Your task to perform on an android device: Clear the cart on bestbuy.com. Search for asus zenbook on bestbuy.com, select the first entry, and add it to the cart. Image 0: 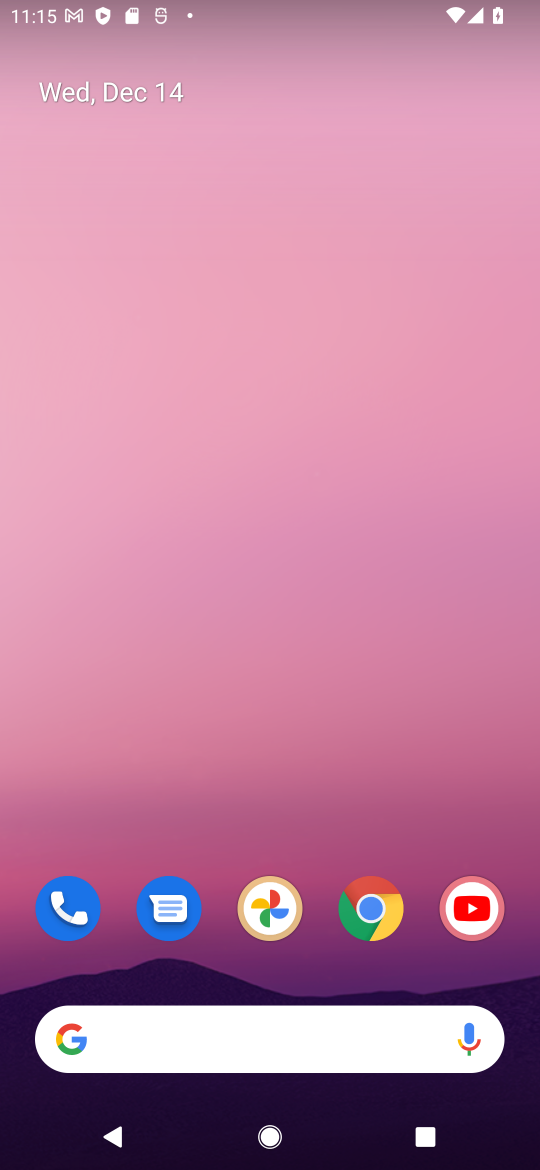
Step 0: click (376, 920)
Your task to perform on an android device: Clear the cart on bestbuy.com. Search for asus zenbook on bestbuy.com, select the first entry, and add it to the cart. Image 1: 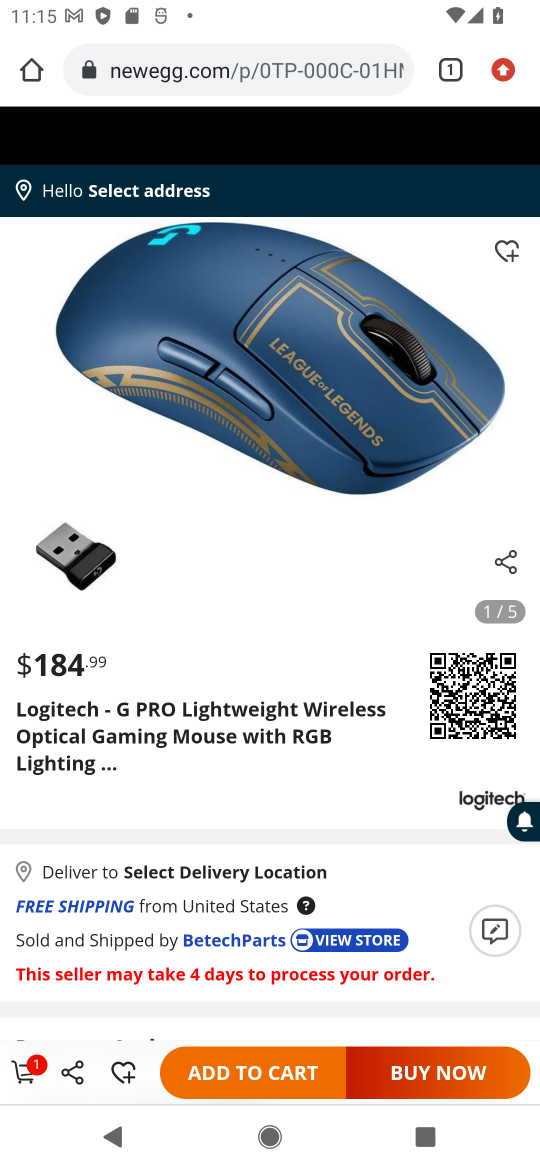
Step 1: click (217, 76)
Your task to perform on an android device: Clear the cart on bestbuy.com. Search for asus zenbook on bestbuy.com, select the first entry, and add it to the cart. Image 2: 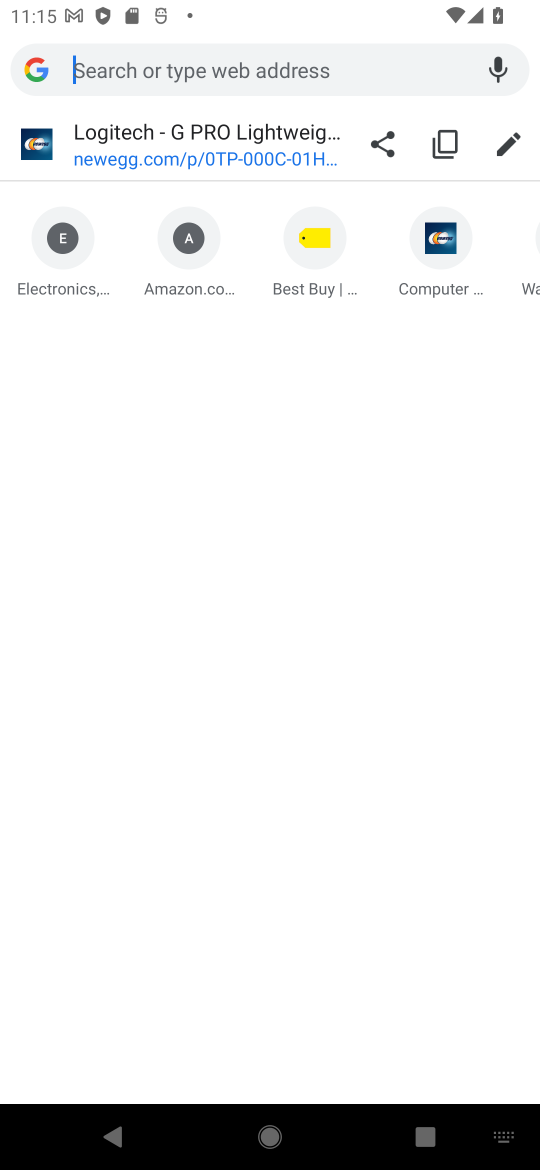
Step 2: click (299, 258)
Your task to perform on an android device: Clear the cart on bestbuy.com. Search for asus zenbook on bestbuy.com, select the first entry, and add it to the cart. Image 3: 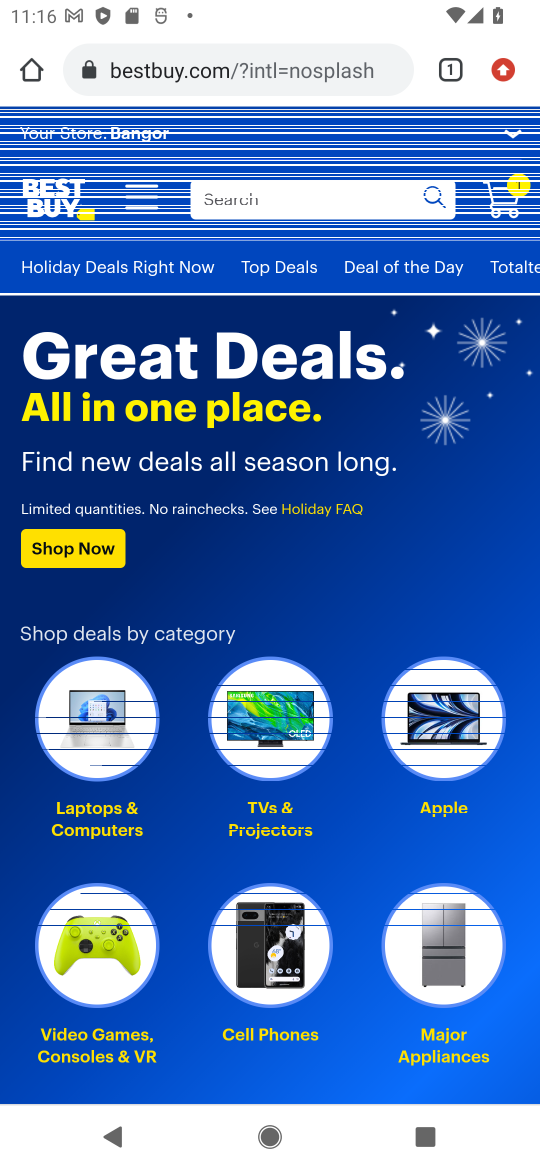
Step 3: click (493, 194)
Your task to perform on an android device: Clear the cart on bestbuy.com. Search for asus zenbook on bestbuy.com, select the first entry, and add it to the cart. Image 4: 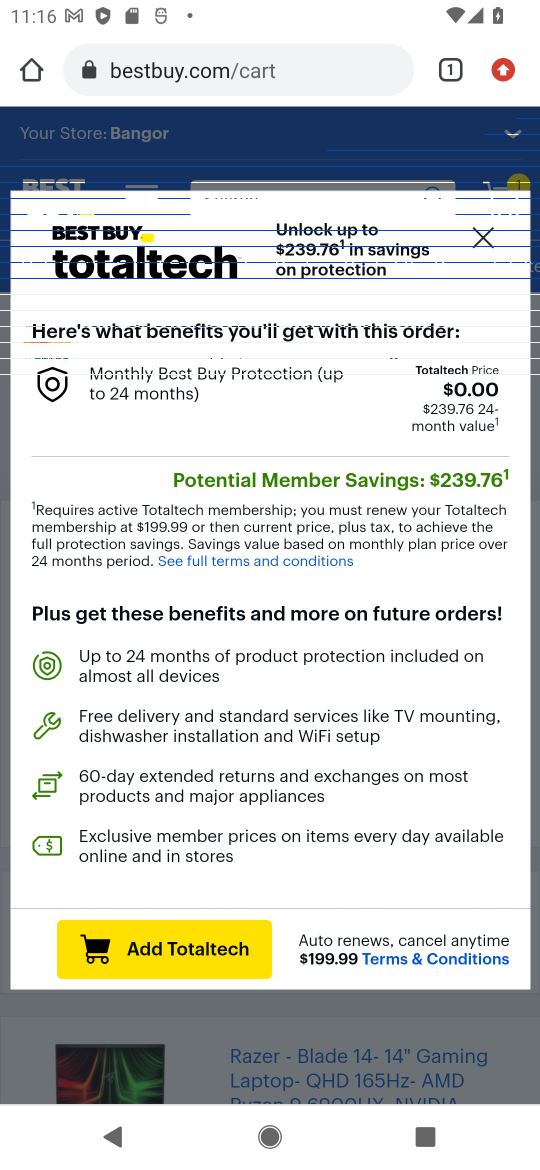
Step 4: click (487, 235)
Your task to perform on an android device: Clear the cart on bestbuy.com. Search for asus zenbook on bestbuy.com, select the first entry, and add it to the cart. Image 5: 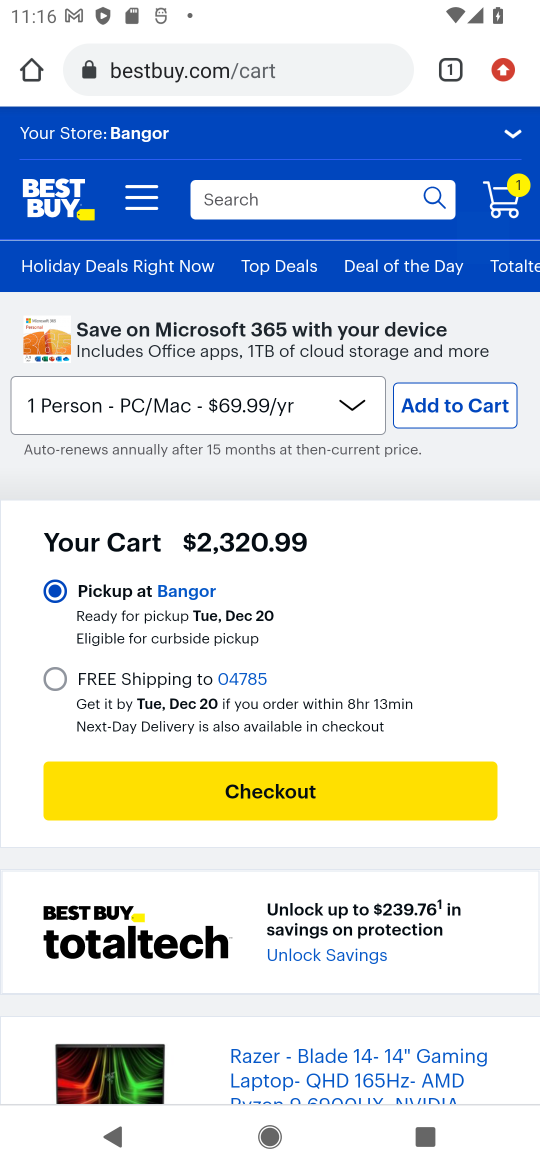
Step 5: drag from (249, 619) to (260, 277)
Your task to perform on an android device: Clear the cart on bestbuy.com. Search for asus zenbook on bestbuy.com, select the first entry, and add it to the cart. Image 6: 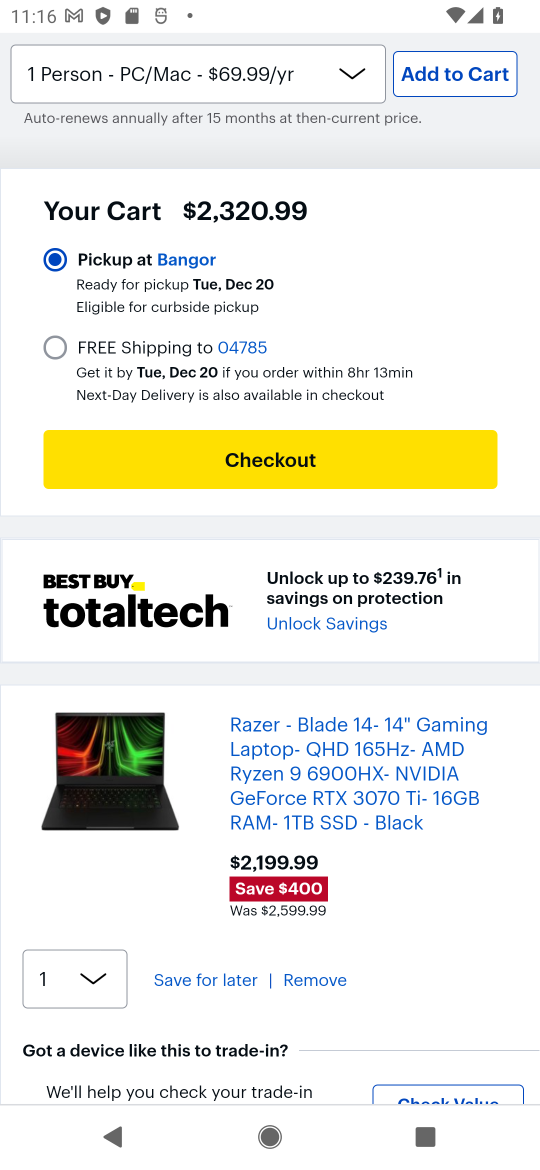
Step 6: click (309, 979)
Your task to perform on an android device: Clear the cart on bestbuy.com. Search for asus zenbook on bestbuy.com, select the first entry, and add it to the cart. Image 7: 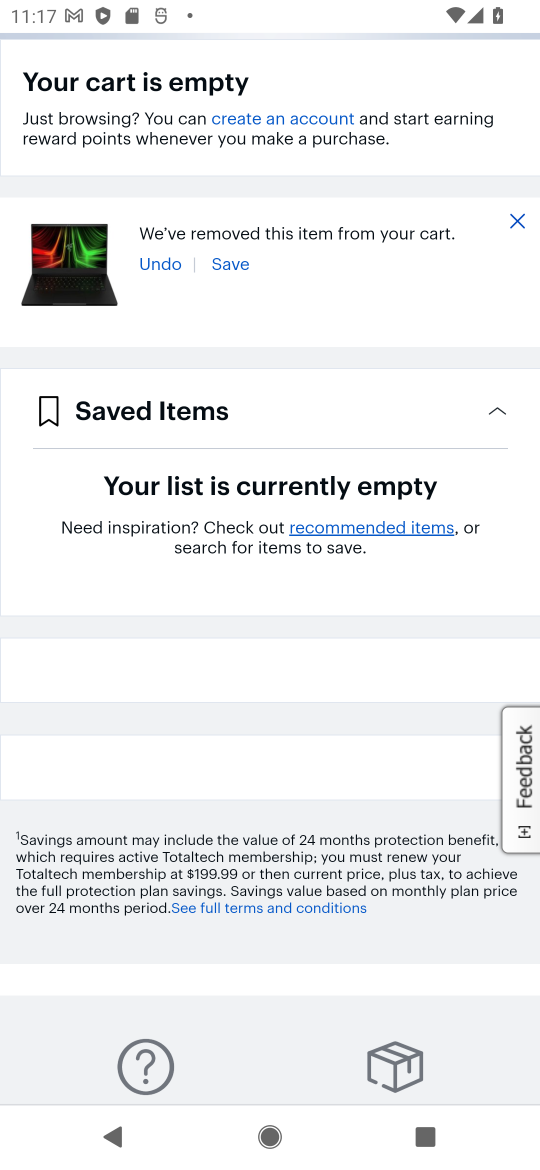
Step 7: drag from (298, 514) to (238, 916)
Your task to perform on an android device: Clear the cart on bestbuy.com. Search for asus zenbook on bestbuy.com, select the first entry, and add it to the cart. Image 8: 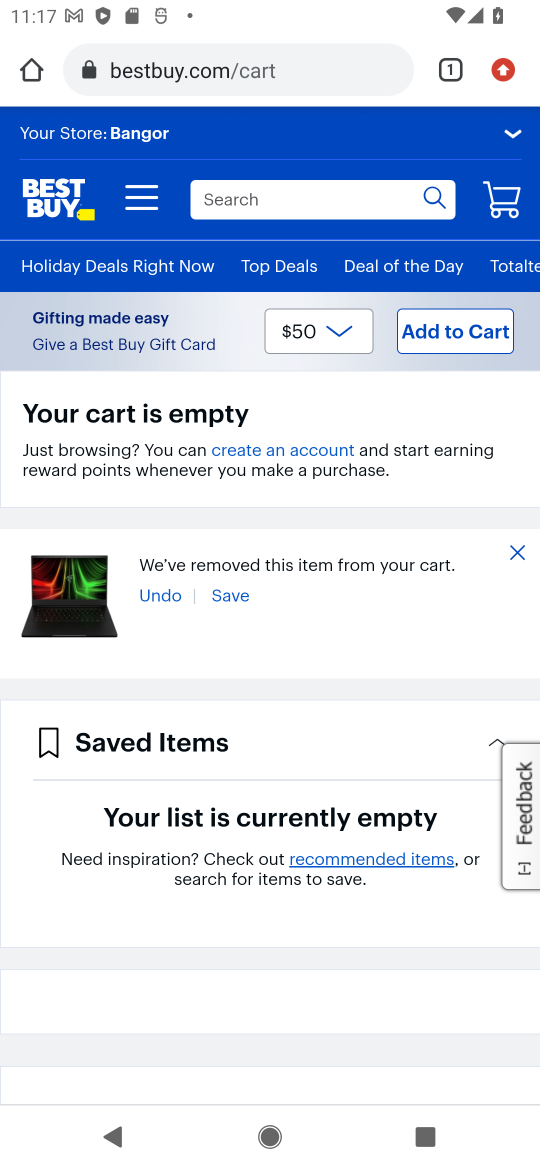
Step 8: click (239, 198)
Your task to perform on an android device: Clear the cart on bestbuy.com. Search for asus zenbook on bestbuy.com, select the first entry, and add it to the cart. Image 9: 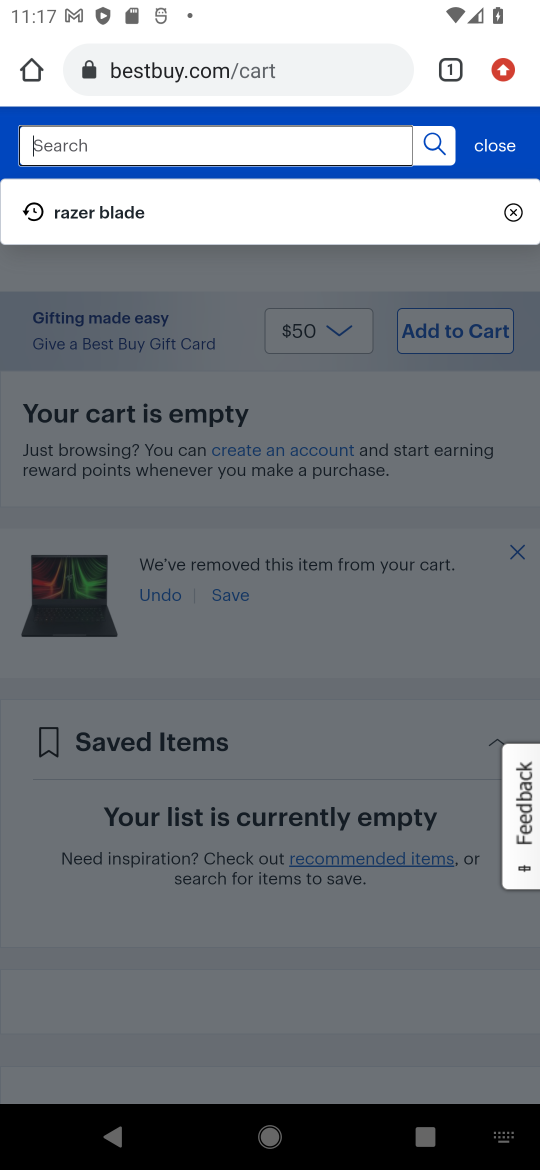
Step 9: type "asus zenbook"
Your task to perform on an android device: Clear the cart on bestbuy.com. Search for asus zenbook on bestbuy.com, select the first entry, and add it to the cart. Image 10: 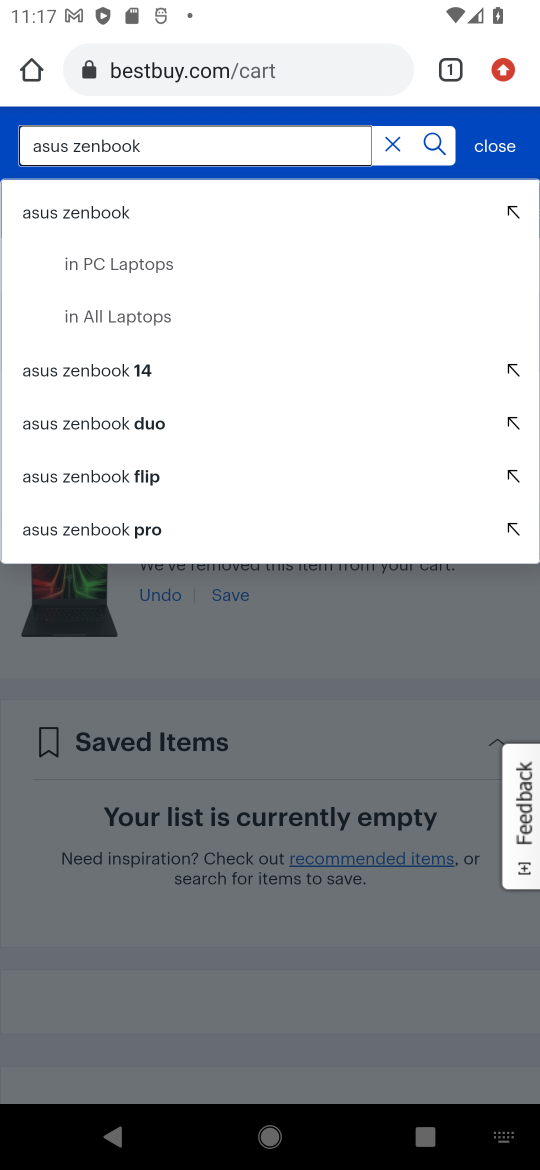
Step 10: click (51, 212)
Your task to perform on an android device: Clear the cart on bestbuy.com. Search for asus zenbook on bestbuy.com, select the first entry, and add it to the cart. Image 11: 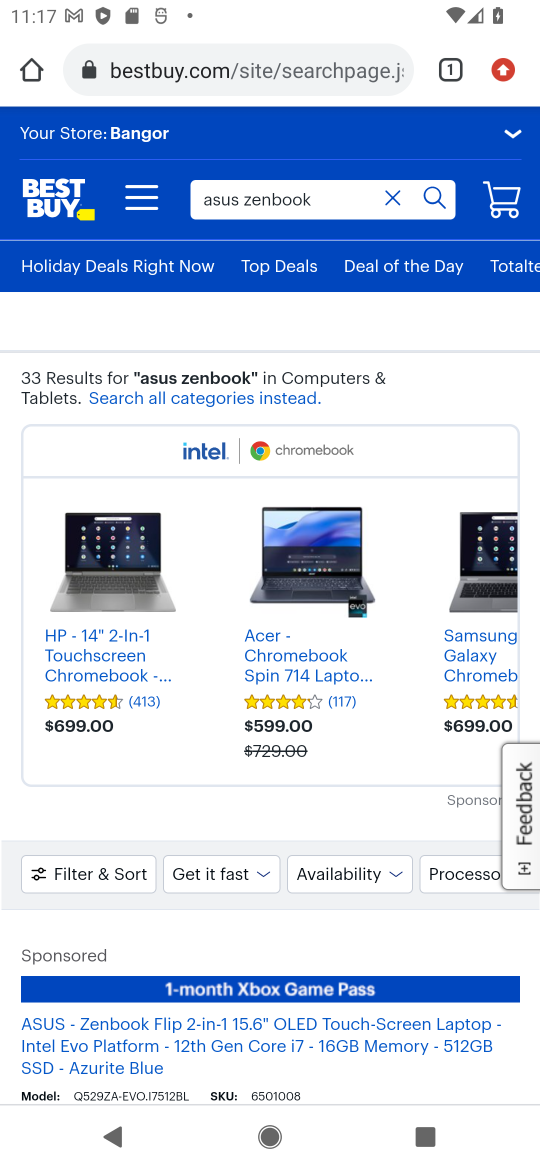
Step 11: drag from (234, 841) to (254, 459)
Your task to perform on an android device: Clear the cart on bestbuy.com. Search for asus zenbook on bestbuy.com, select the first entry, and add it to the cart. Image 12: 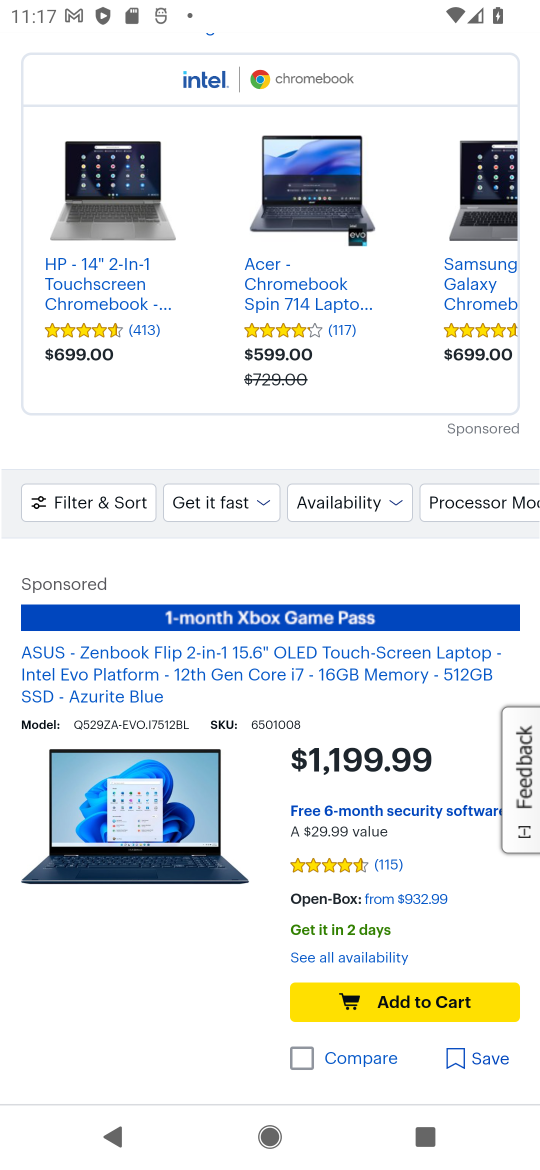
Step 12: drag from (170, 828) to (175, 564)
Your task to perform on an android device: Clear the cart on bestbuy.com. Search for asus zenbook on bestbuy.com, select the first entry, and add it to the cart. Image 13: 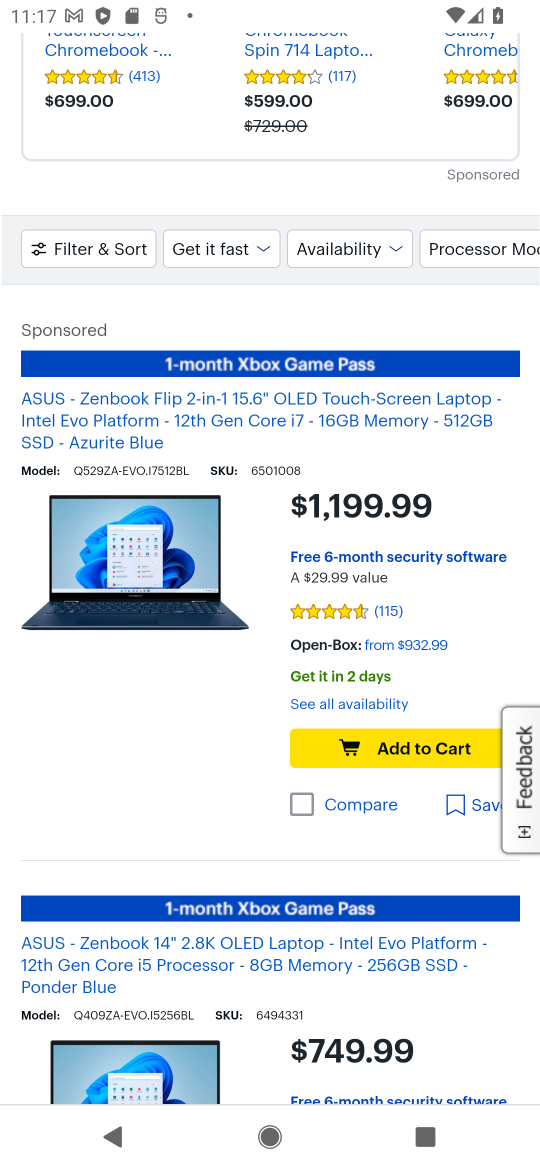
Step 13: click (366, 741)
Your task to perform on an android device: Clear the cart on bestbuy.com. Search for asus zenbook on bestbuy.com, select the first entry, and add it to the cart. Image 14: 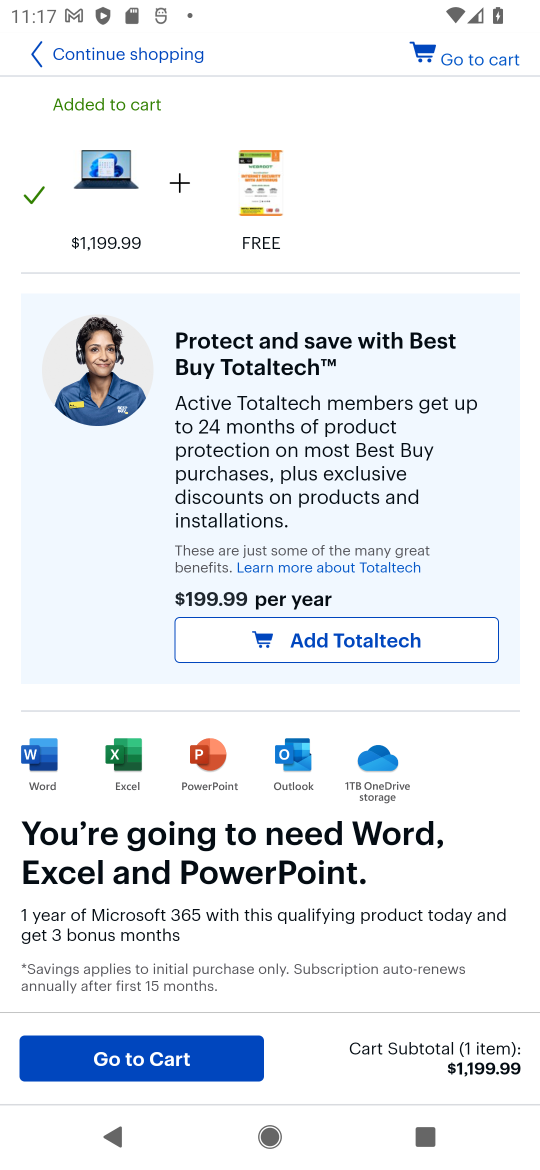
Step 14: task complete